Your task to perform on an android device: Play the last video I watched on Youtube Image 0: 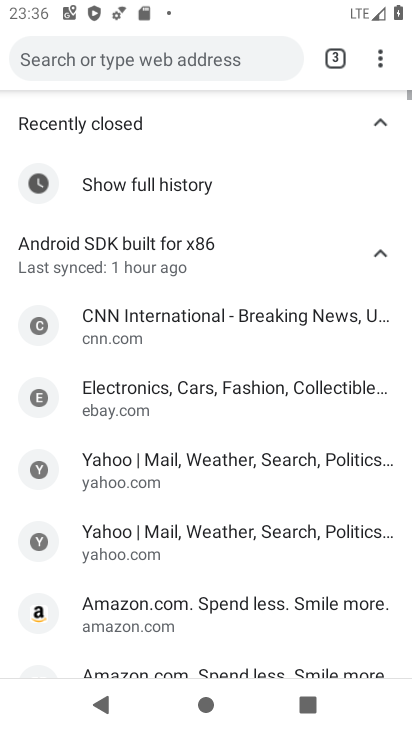
Step 0: drag from (191, 578) to (192, 244)
Your task to perform on an android device: Play the last video I watched on Youtube Image 1: 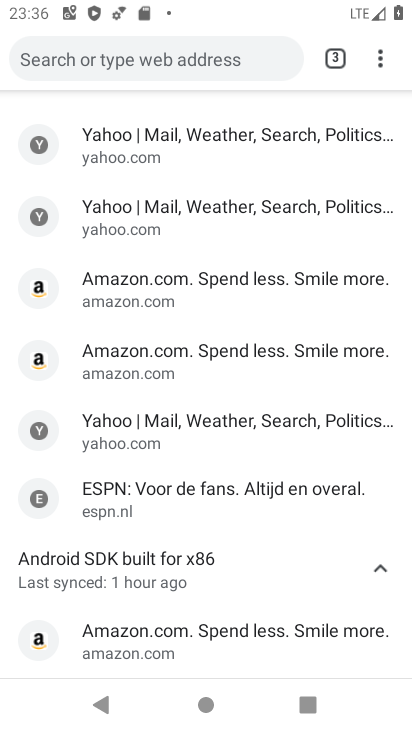
Step 1: press home button
Your task to perform on an android device: Play the last video I watched on Youtube Image 2: 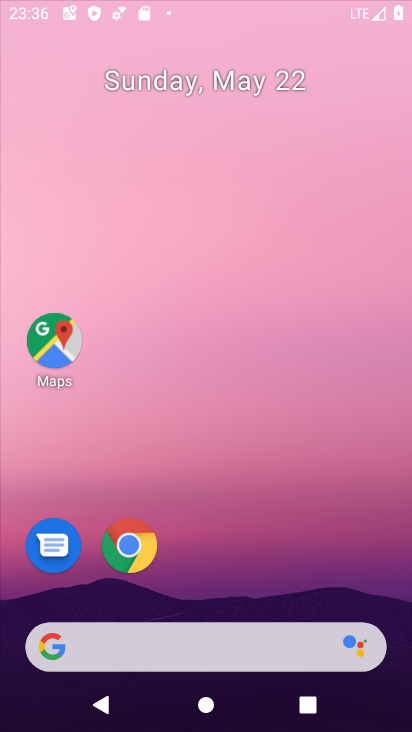
Step 2: drag from (168, 611) to (243, 200)
Your task to perform on an android device: Play the last video I watched on Youtube Image 3: 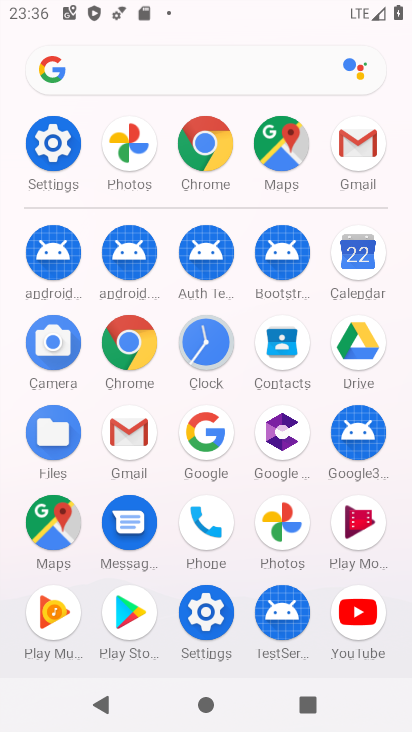
Step 3: click (361, 598)
Your task to perform on an android device: Play the last video I watched on Youtube Image 4: 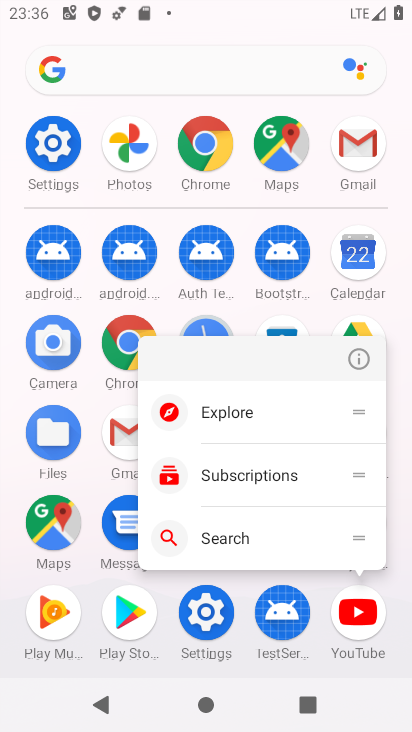
Step 4: click (362, 358)
Your task to perform on an android device: Play the last video I watched on Youtube Image 5: 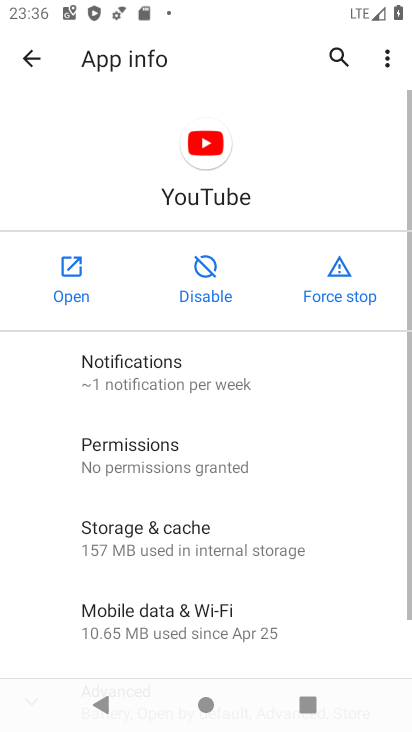
Step 5: click (71, 271)
Your task to perform on an android device: Play the last video I watched on Youtube Image 6: 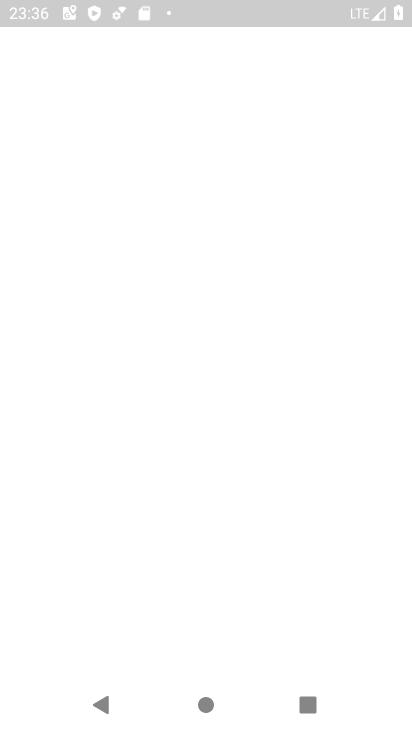
Step 6: drag from (229, 550) to (252, 42)
Your task to perform on an android device: Play the last video I watched on Youtube Image 7: 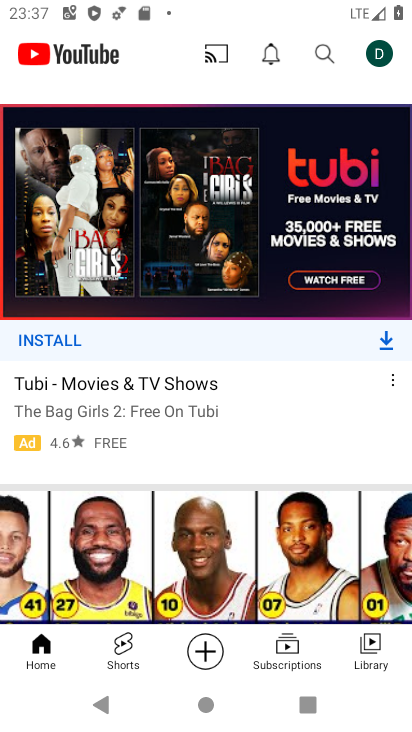
Step 7: drag from (230, 564) to (251, 264)
Your task to perform on an android device: Play the last video I watched on Youtube Image 8: 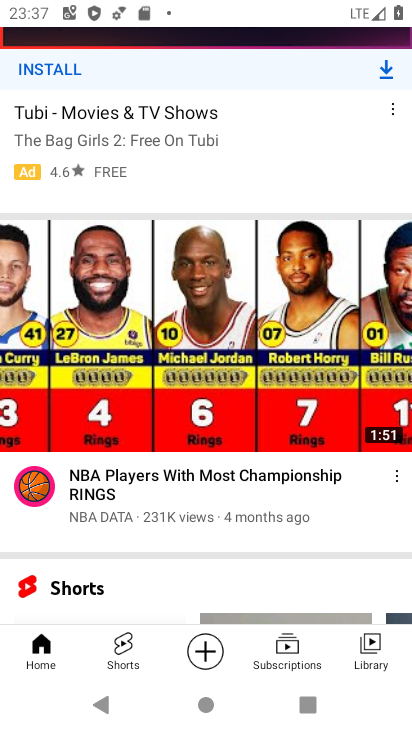
Step 8: drag from (179, 568) to (239, 113)
Your task to perform on an android device: Play the last video I watched on Youtube Image 9: 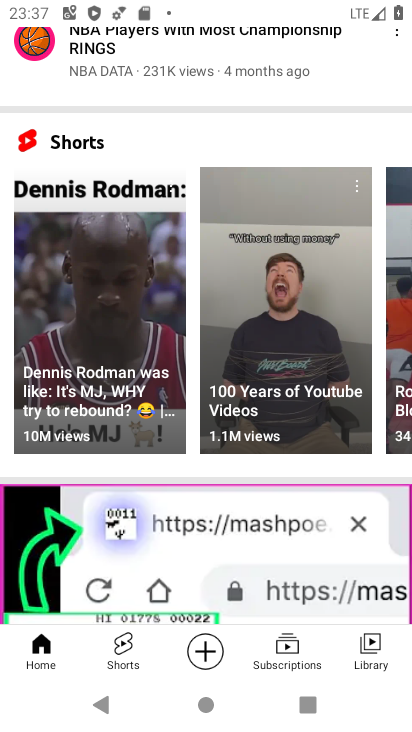
Step 9: click (367, 654)
Your task to perform on an android device: Play the last video I watched on Youtube Image 10: 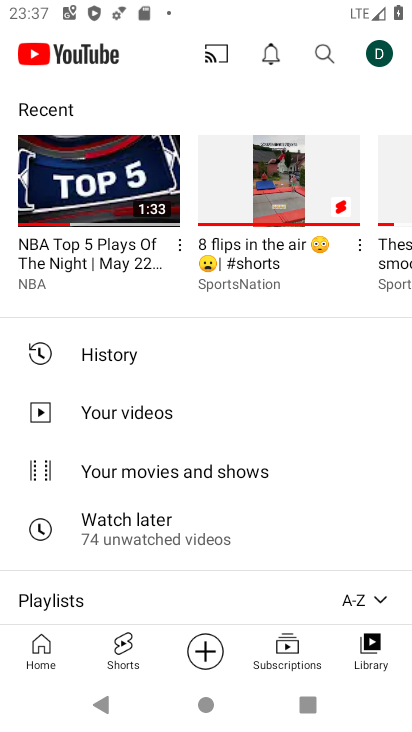
Step 10: click (94, 195)
Your task to perform on an android device: Play the last video I watched on Youtube Image 11: 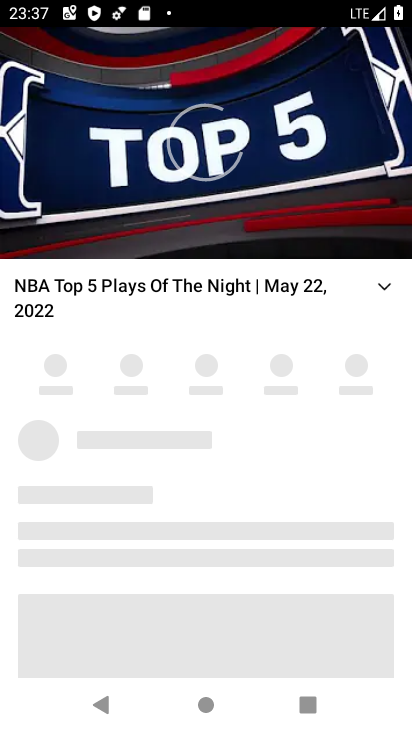
Step 11: drag from (287, 492) to (334, 171)
Your task to perform on an android device: Play the last video I watched on Youtube Image 12: 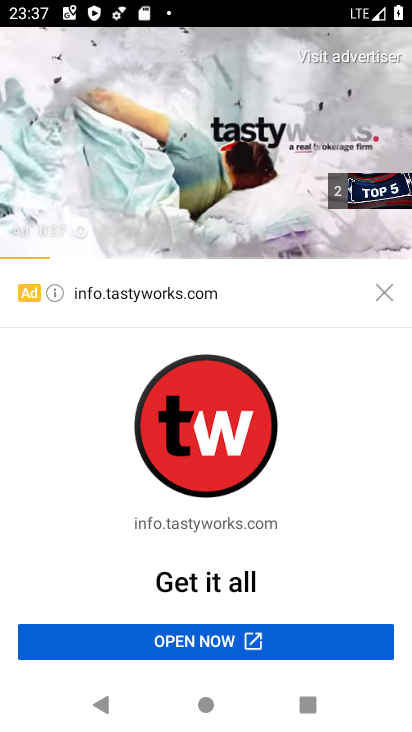
Step 12: drag from (226, 570) to (263, 202)
Your task to perform on an android device: Play the last video I watched on Youtube Image 13: 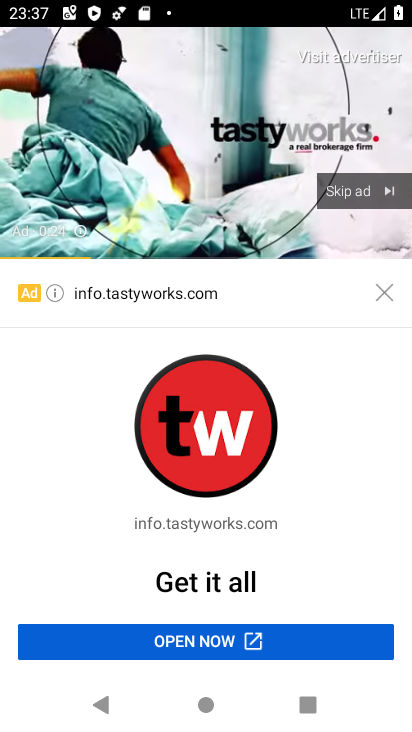
Step 13: click (359, 207)
Your task to perform on an android device: Play the last video I watched on Youtube Image 14: 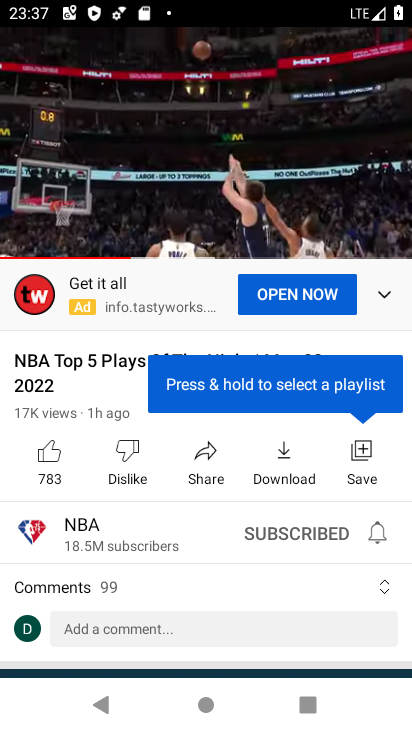
Step 14: task complete